Your task to perform on an android device: Go to Yahoo.com Image 0: 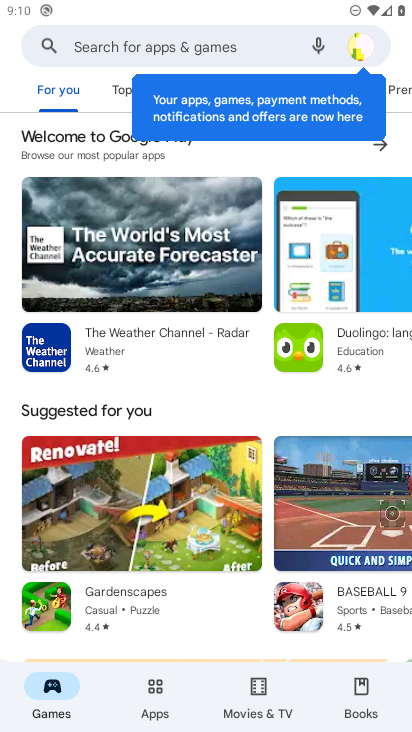
Step 0: press home button
Your task to perform on an android device: Go to Yahoo.com Image 1: 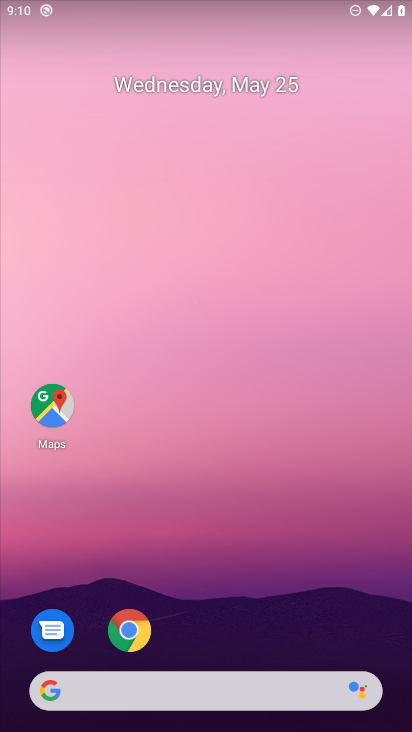
Step 1: click (141, 645)
Your task to perform on an android device: Go to Yahoo.com Image 2: 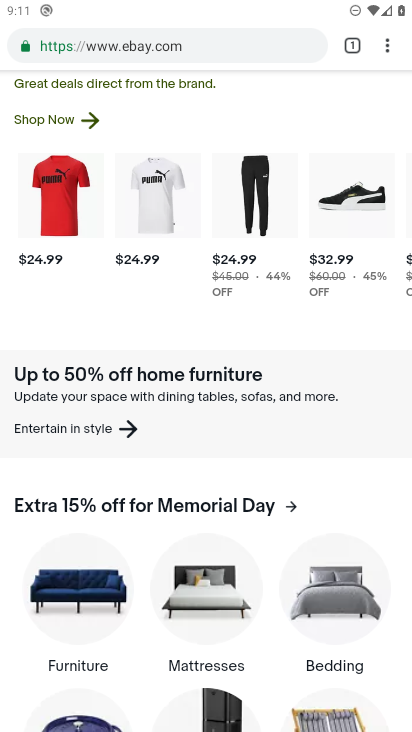
Step 2: press home button
Your task to perform on an android device: Go to Yahoo.com Image 3: 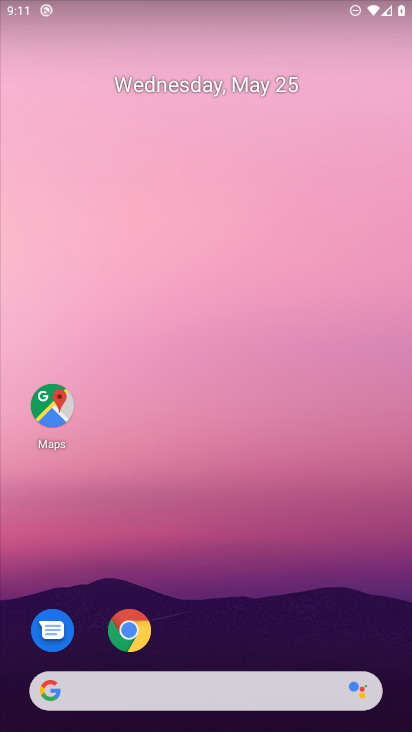
Step 3: click (136, 632)
Your task to perform on an android device: Go to Yahoo.com Image 4: 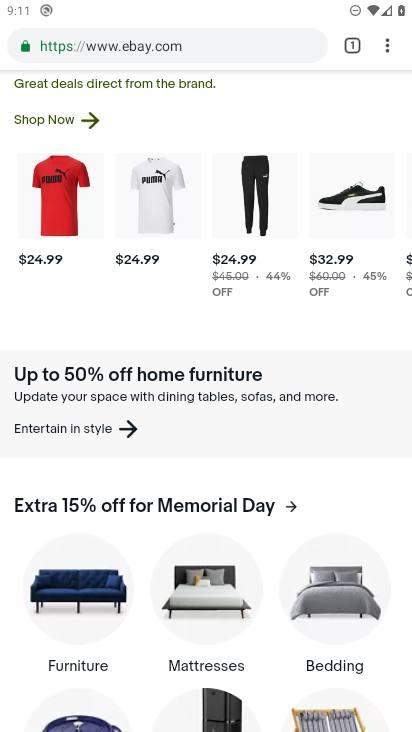
Step 4: click (347, 40)
Your task to perform on an android device: Go to Yahoo.com Image 5: 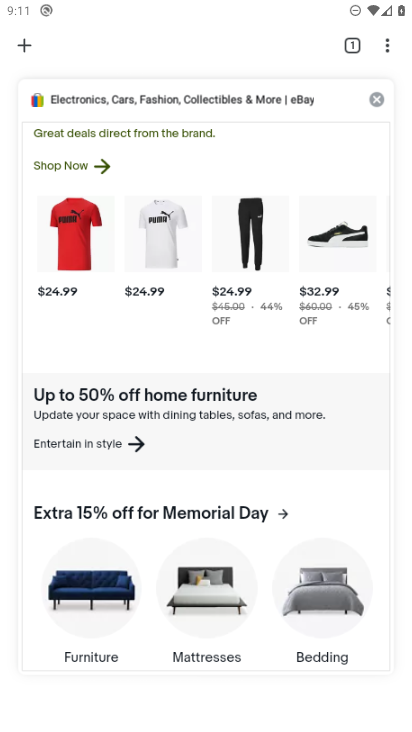
Step 5: click (383, 97)
Your task to perform on an android device: Go to Yahoo.com Image 6: 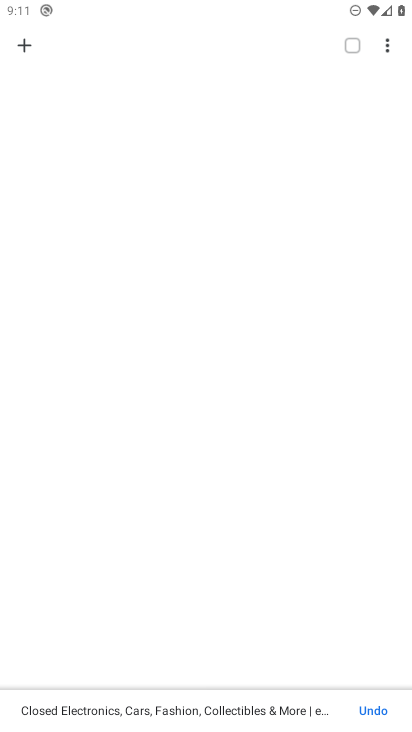
Step 6: click (20, 52)
Your task to perform on an android device: Go to Yahoo.com Image 7: 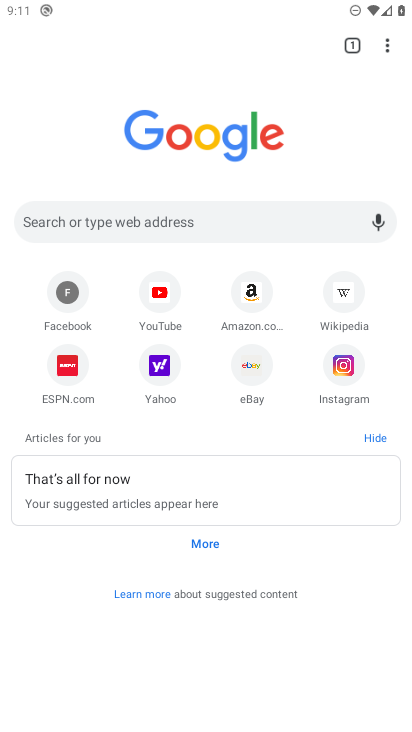
Step 7: click (158, 367)
Your task to perform on an android device: Go to Yahoo.com Image 8: 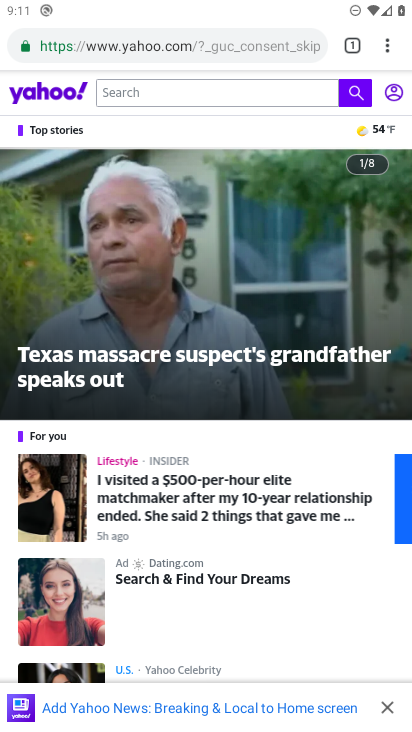
Step 8: task complete